Your task to perform on an android device: Open the calendar app, open the side menu, and click the "Day" option Image 0: 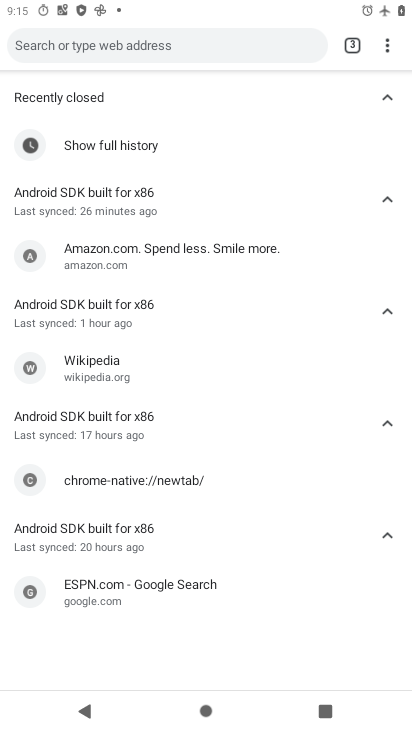
Step 0: press home button
Your task to perform on an android device: Open the calendar app, open the side menu, and click the "Day" option Image 1: 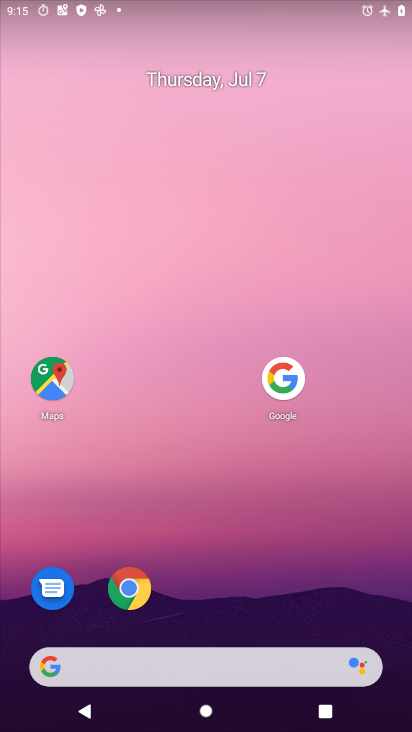
Step 1: drag from (170, 661) to (225, 97)
Your task to perform on an android device: Open the calendar app, open the side menu, and click the "Day" option Image 2: 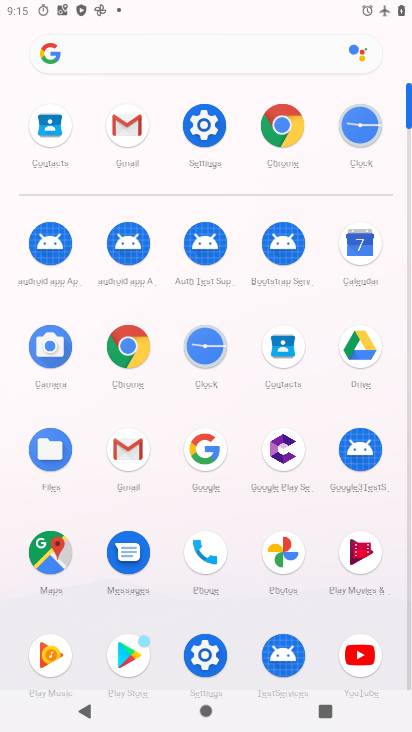
Step 2: click (358, 245)
Your task to perform on an android device: Open the calendar app, open the side menu, and click the "Day" option Image 3: 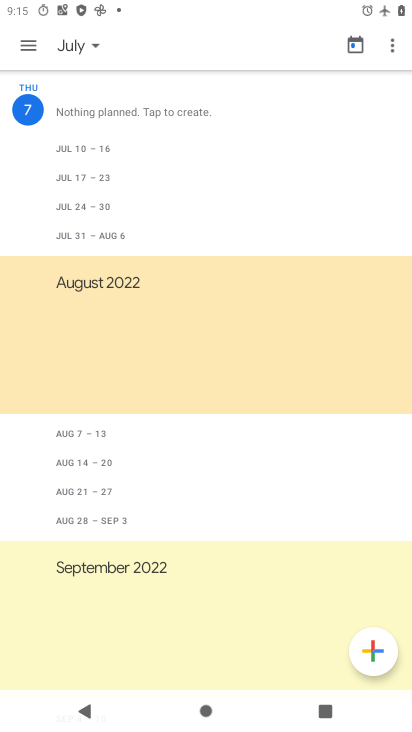
Step 3: click (26, 44)
Your task to perform on an android device: Open the calendar app, open the side menu, and click the "Day" option Image 4: 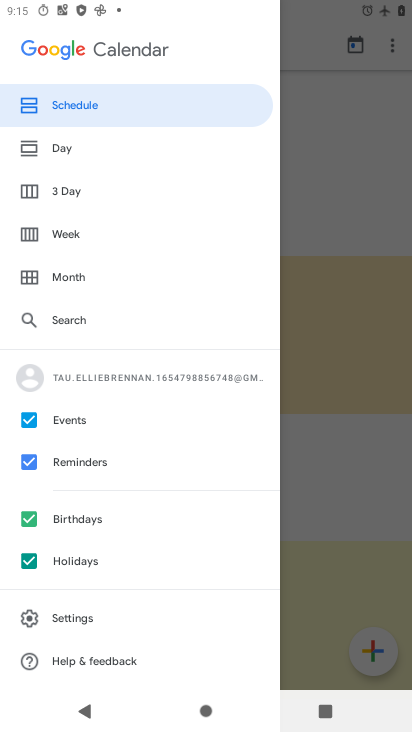
Step 4: click (72, 151)
Your task to perform on an android device: Open the calendar app, open the side menu, and click the "Day" option Image 5: 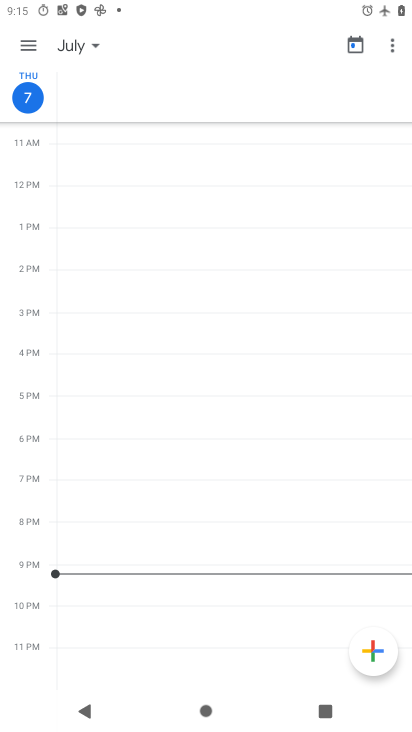
Step 5: task complete